Your task to perform on an android device: Open settings on Google Maps Image 0: 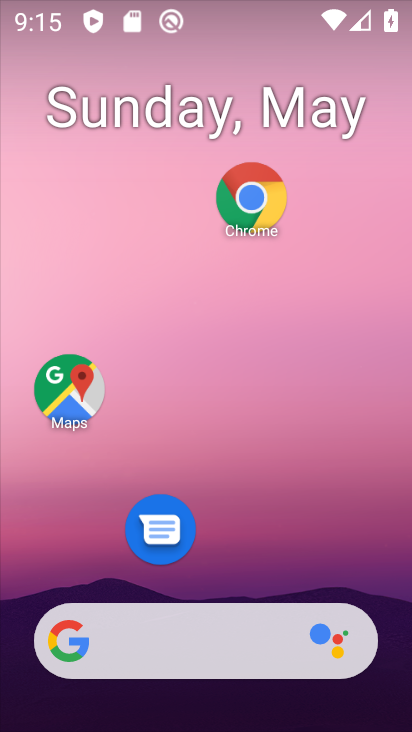
Step 0: click (65, 396)
Your task to perform on an android device: Open settings on Google Maps Image 1: 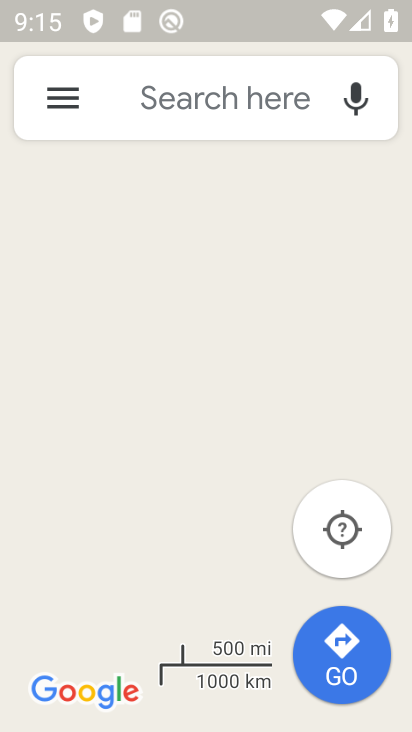
Step 1: click (70, 94)
Your task to perform on an android device: Open settings on Google Maps Image 2: 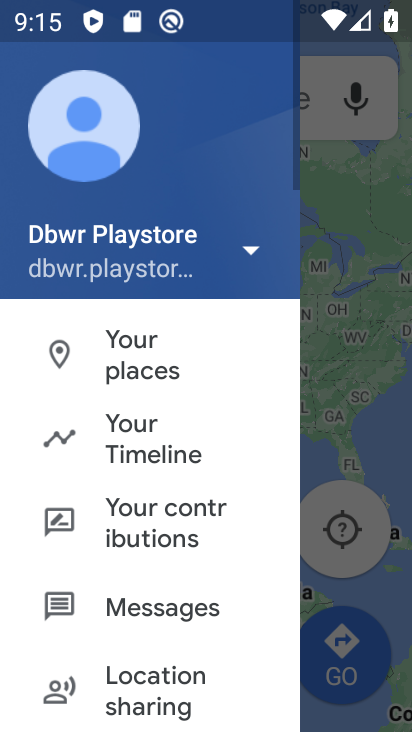
Step 2: drag from (193, 601) to (201, 320)
Your task to perform on an android device: Open settings on Google Maps Image 3: 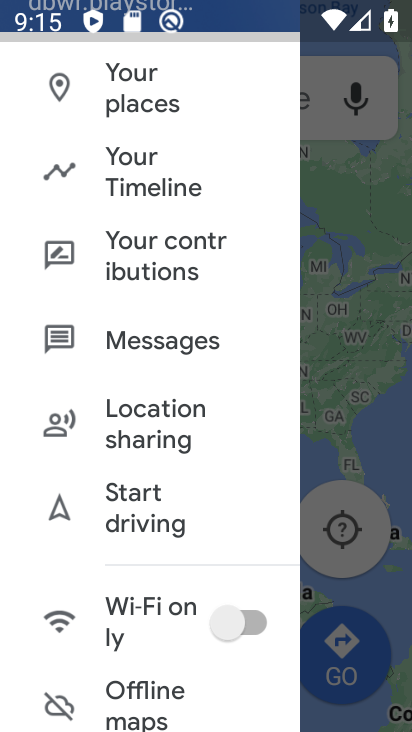
Step 3: drag from (145, 626) to (150, 214)
Your task to perform on an android device: Open settings on Google Maps Image 4: 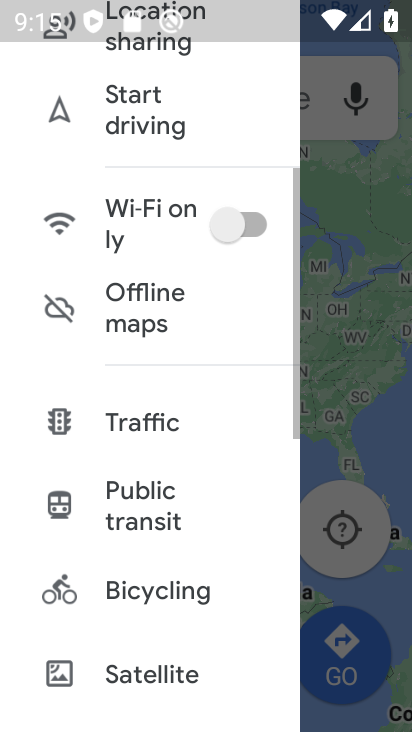
Step 4: drag from (154, 657) to (170, 180)
Your task to perform on an android device: Open settings on Google Maps Image 5: 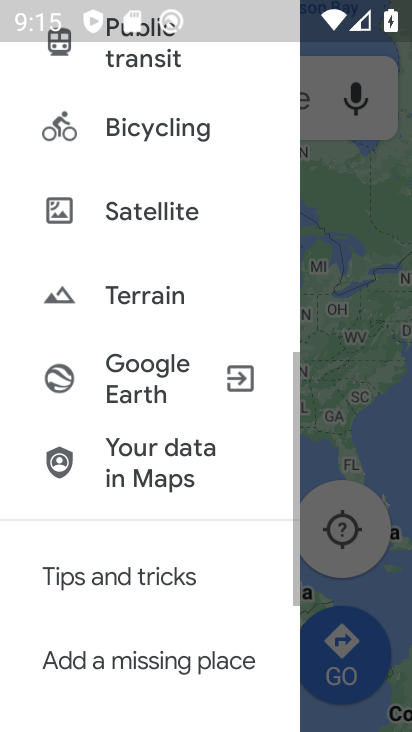
Step 5: drag from (164, 528) to (163, 185)
Your task to perform on an android device: Open settings on Google Maps Image 6: 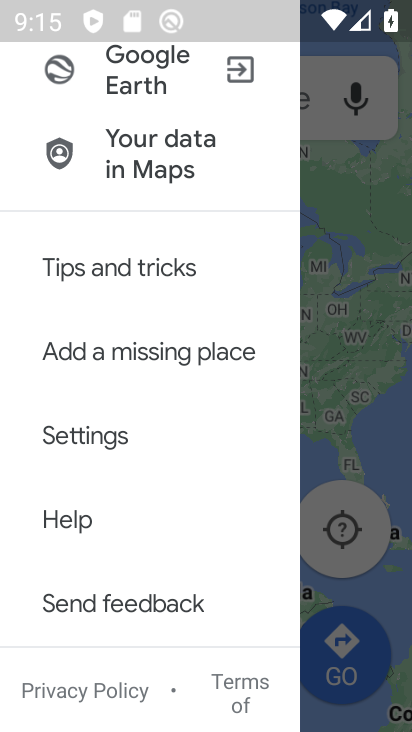
Step 6: click (79, 433)
Your task to perform on an android device: Open settings on Google Maps Image 7: 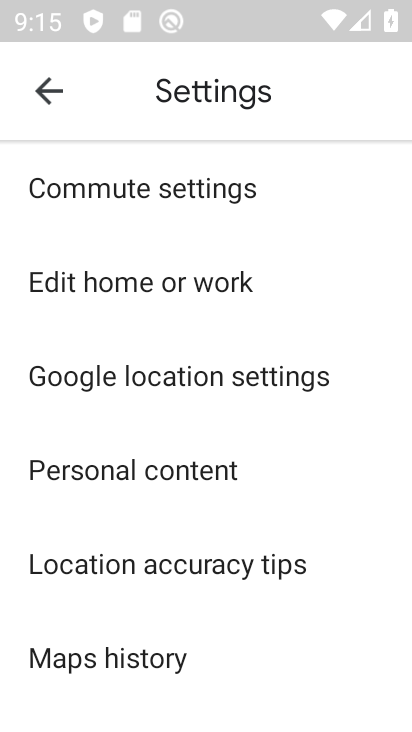
Step 7: task complete